Your task to perform on an android device: empty trash in the gmail app Image 0: 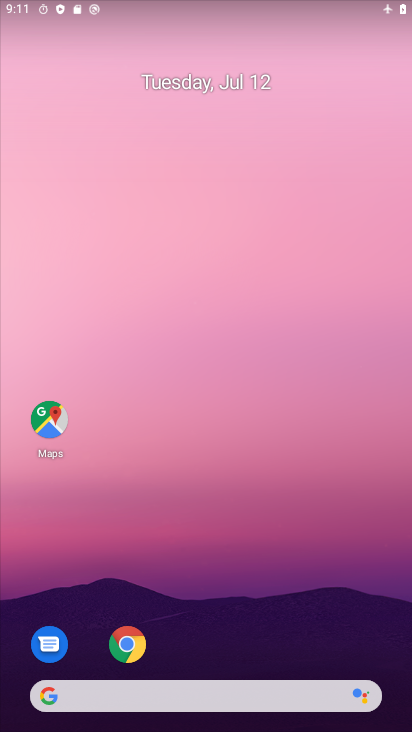
Step 0: drag from (218, 656) to (218, 284)
Your task to perform on an android device: empty trash in the gmail app Image 1: 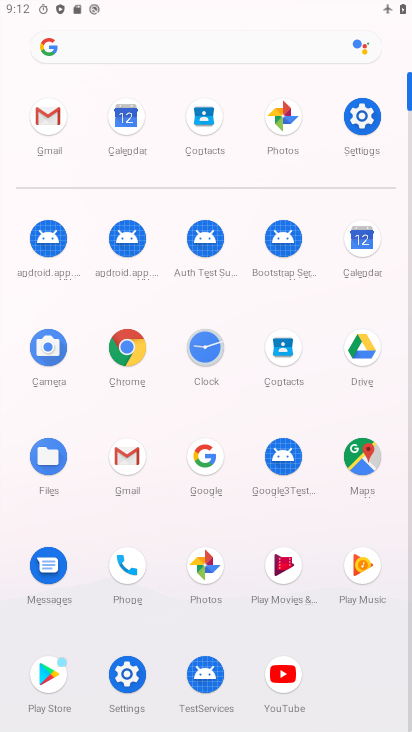
Step 1: click (31, 130)
Your task to perform on an android device: empty trash in the gmail app Image 2: 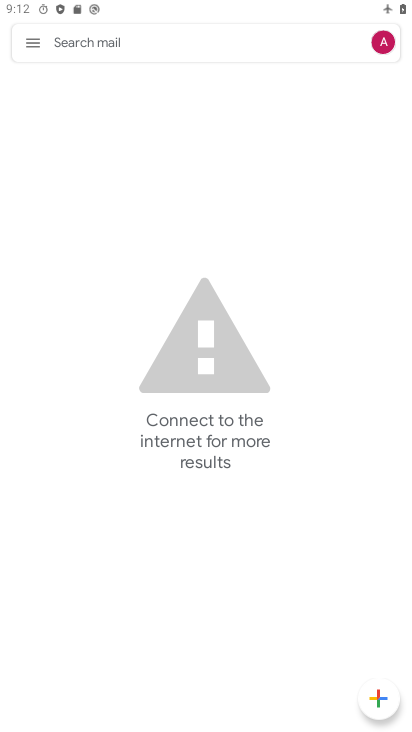
Step 2: click (29, 40)
Your task to perform on an android device: empty trash in the gmail app Image 3: 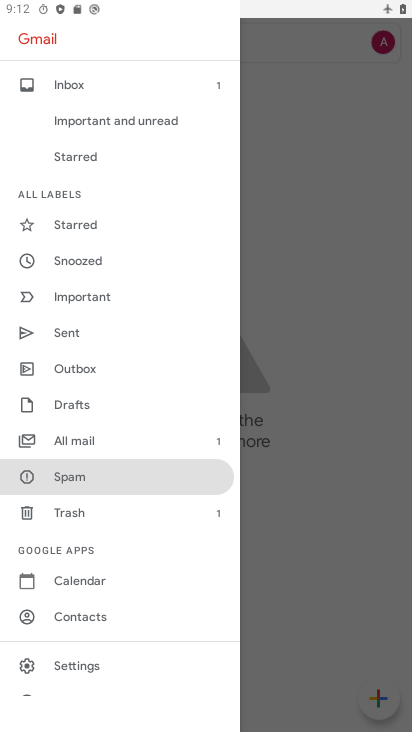
Step 3: click (102, 512)
Your task to perform on an android device: empty trash in the gmail app Image 4: 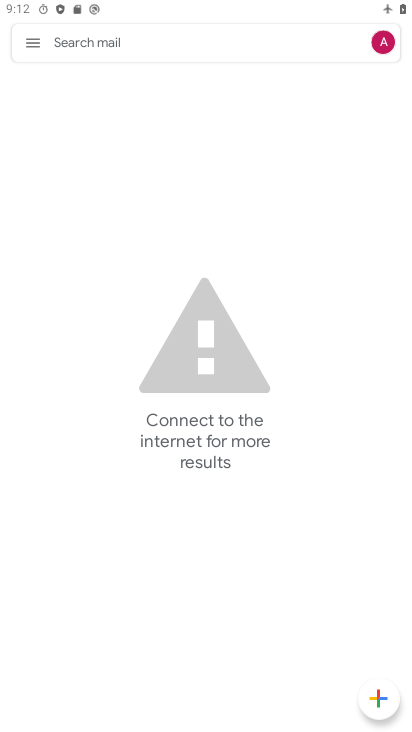
Step 4: task complete